Your task to perform on an android device: show emergency info Image 0: 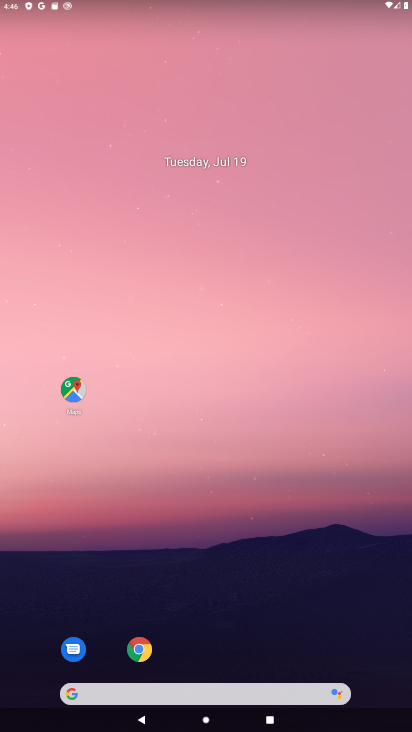
Step 0: press home button
Your task to perform on an android device: show emergency info Image 1: 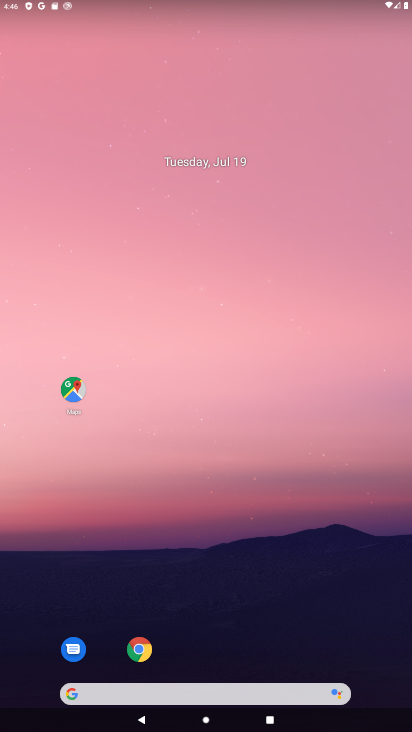
Step 1: drag from (216, 661) to (233, 140)
Your task to perform on an android device: show emergency info Image 2: 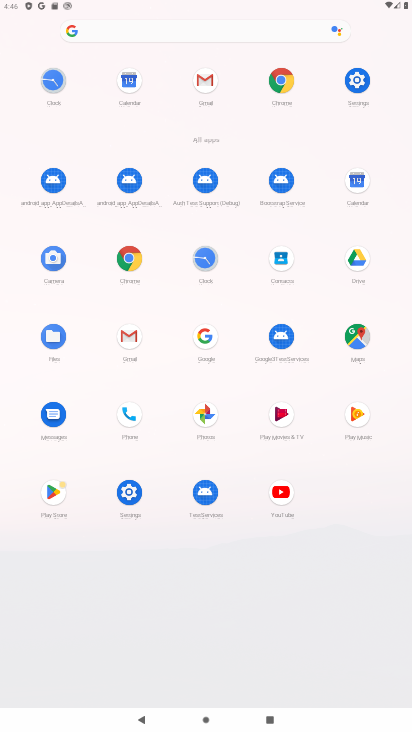
Step 2: click (352, 80)
Your task to perform on an android device: show emergency info Image 3: 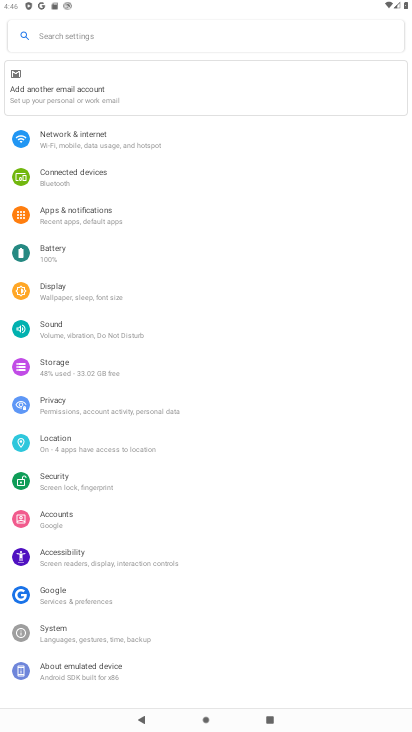
Step 3: click (130, 669)
Your task to perform on an android device: show emergency info Image 4: 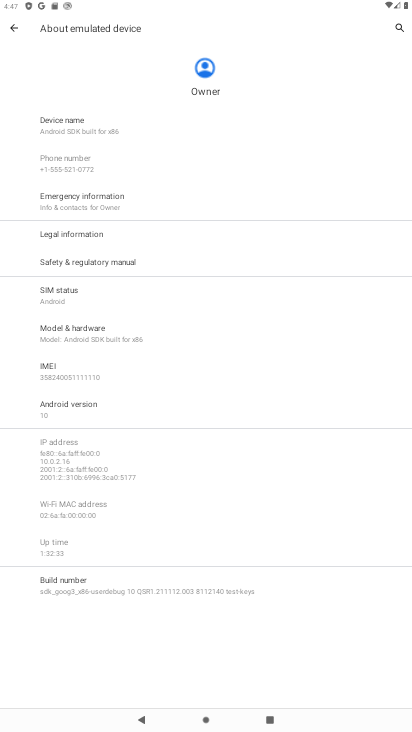
Step 4: click (110, 199)
Your task to perform on an android device: show emergency info Image 5: 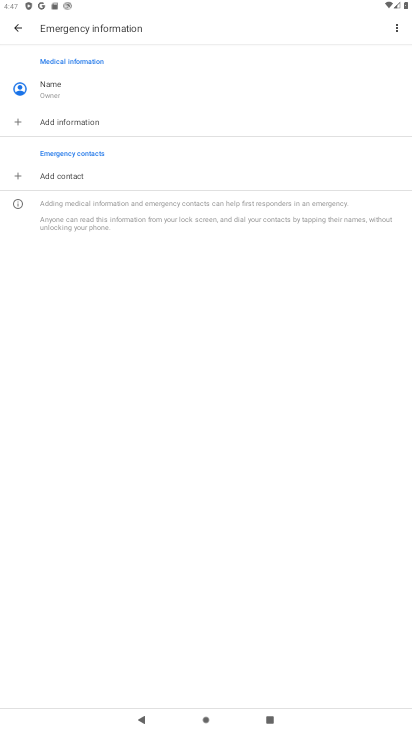
Step 5: task complete